Your task to perform on an android device: turn off sleep mode Image 0: 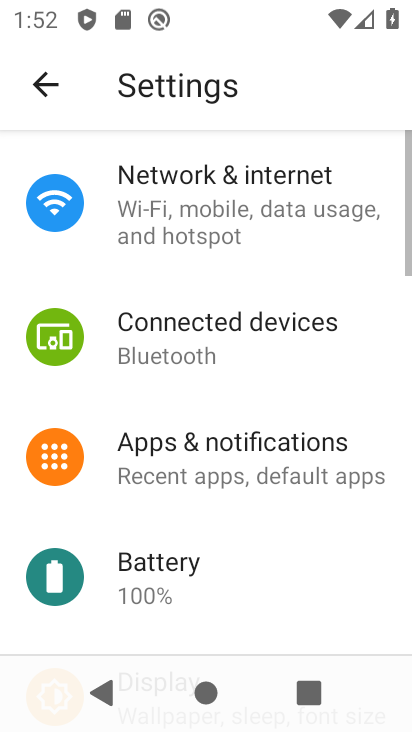
Step 0: drag from (318, 550) to (359, 138)
Your task to perform on an android device: turn off sleep mode Image 1: 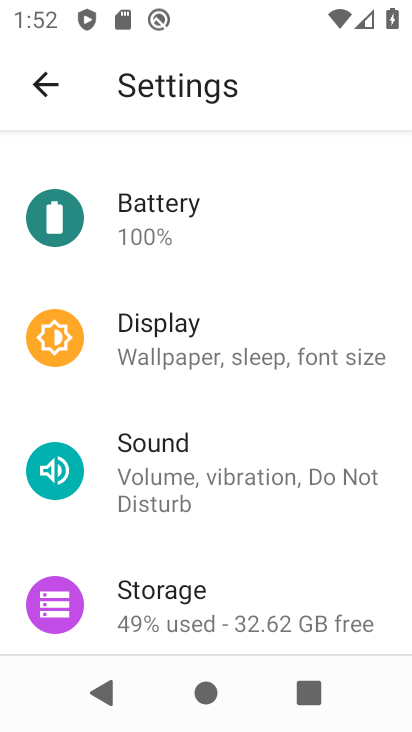
Step 1: click (262, 315)
Your task to perform on an android device: turn off sleep mode Image 2: 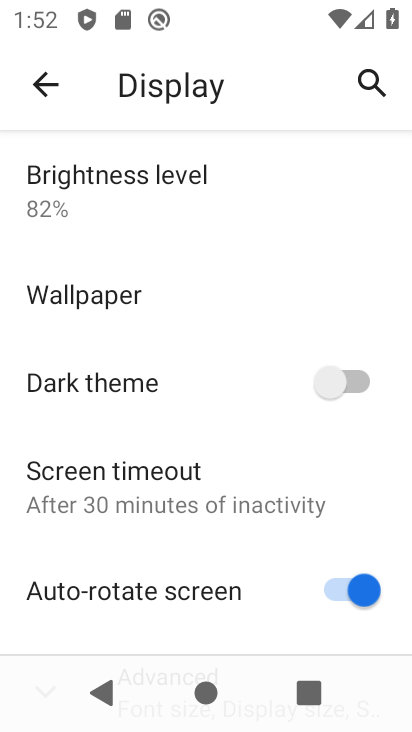
Step 2: click (218, 469)
Your task to perform on an android device: turn off sleep mode Image 3: 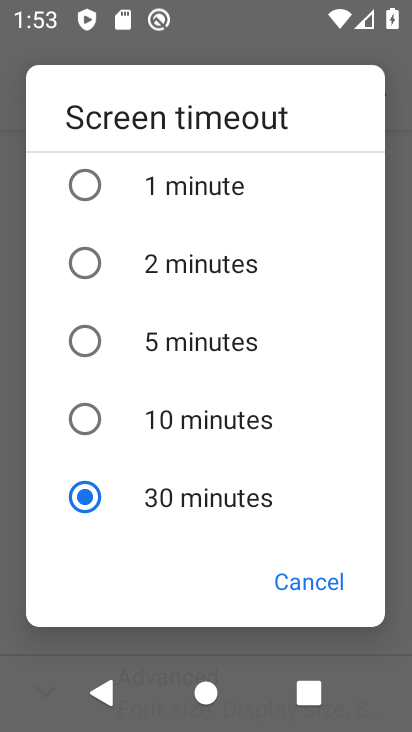
Step 3: task complete